Your task to perform on an android device: Go to Yahoo.com Image 0: 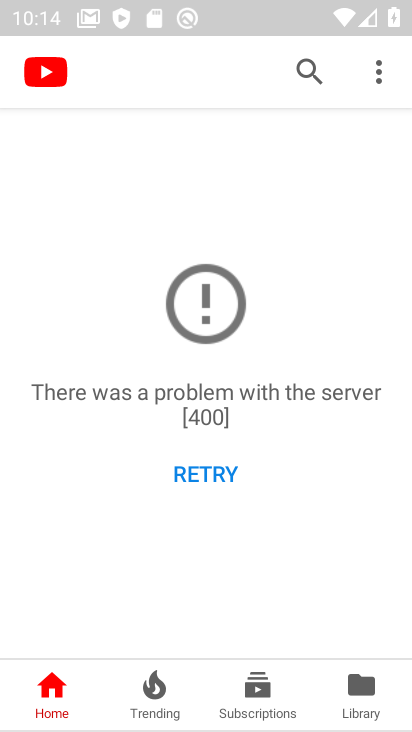
Step 0: press home button
Your task to perform on an android device: Go to Yahoo.com Image 1: 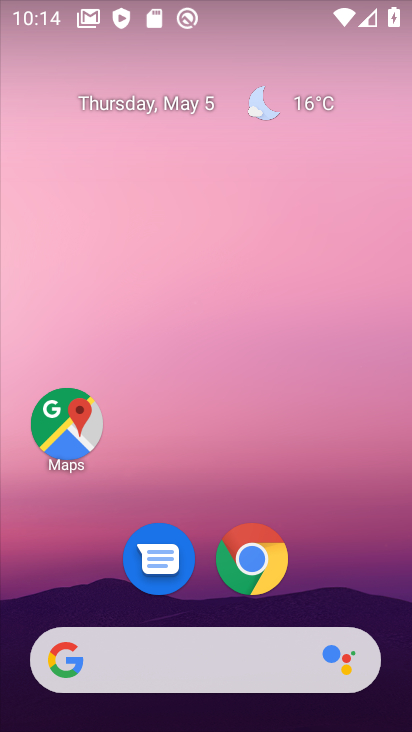
Step 1: click (276, 564)
Your task to perform on an android device: Go to Yahoo.com Image 2: 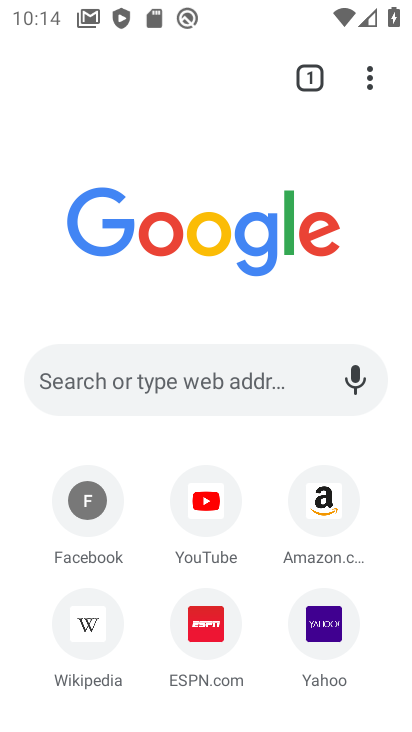
Step 2: click (186, 386)
Your task to perform on an android device: Go to Yahoo.com Image 3: 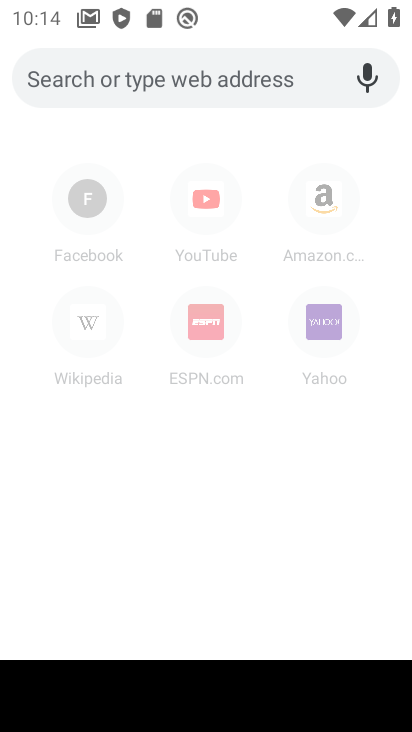
Step 3: type "Yahoo.com"
Your task to perform on an android device: Go to Yahoo.com Image 4: 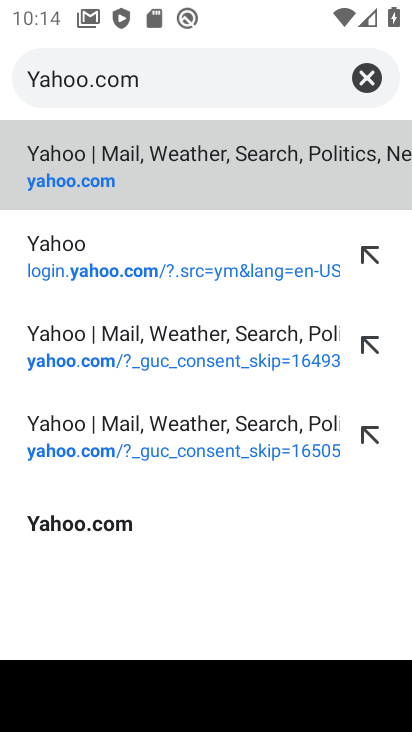
Step 4: click (79, 178)
Your task to perform on an android device: Go to Yahoo.com Image 5: 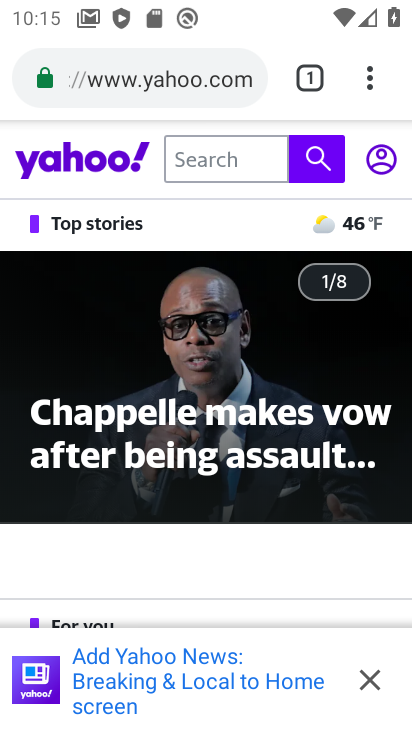
Step 5: task complete